Your task to perform on an android device: change the clock display to digital Image 0: 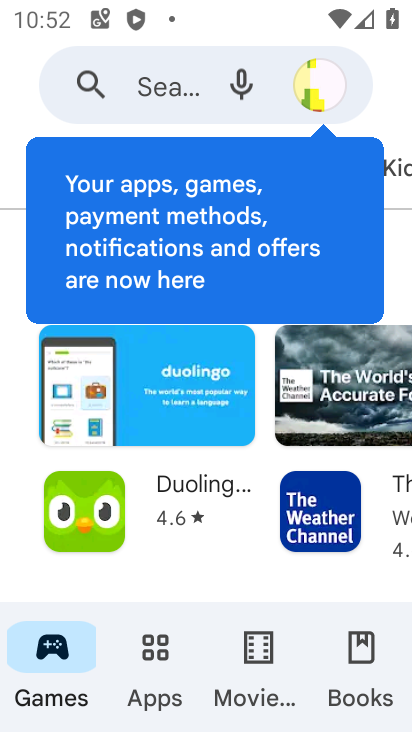
Step 0: press home button
Your task to perform on an android device: change the clock display to digital Image 1: 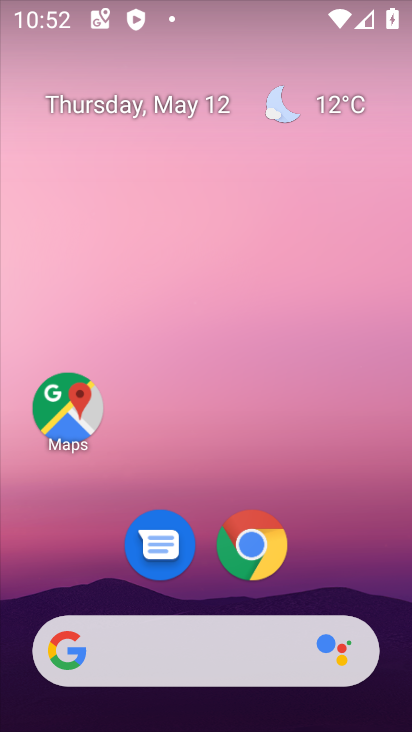
Step 1: drag from (207, 594) to (212, 339)
Your task to perform on an android device: change the clock display to digital Image 2: 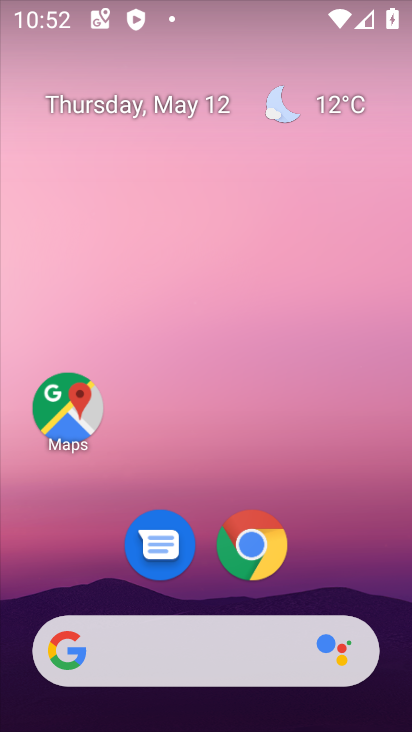
Step 2: drag from (210, 598) to (206, 140)
Your task to perform on an android device: change the clock display to digital Image 3: 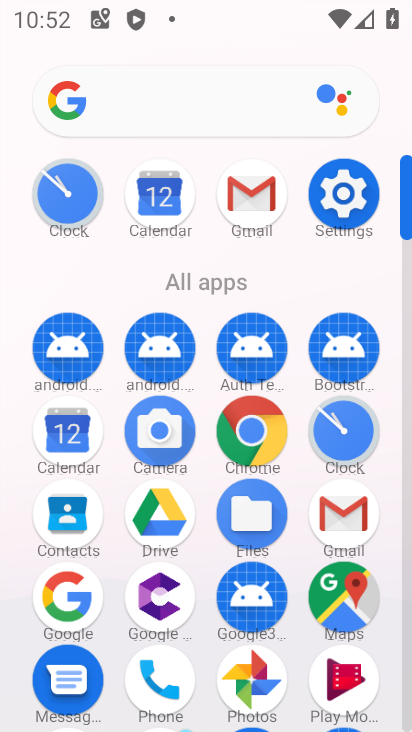
Step 3: click (341, 425)
Your task to perform on an android device: change the clock display to digital Image 4: 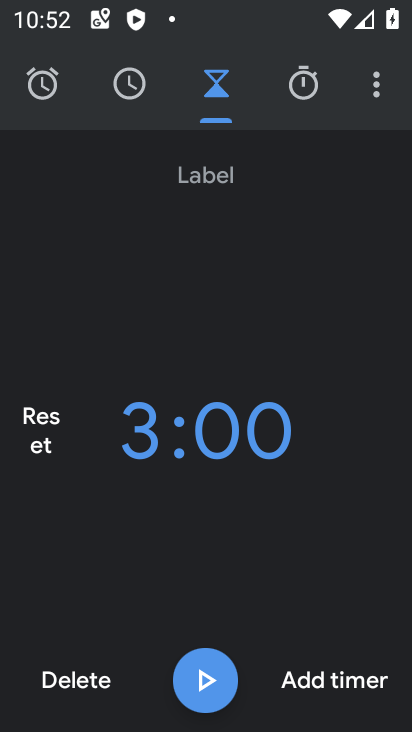
Step 4: click (379, 85)
Your task to perform on an android device: change the clock display to digital Image 5: 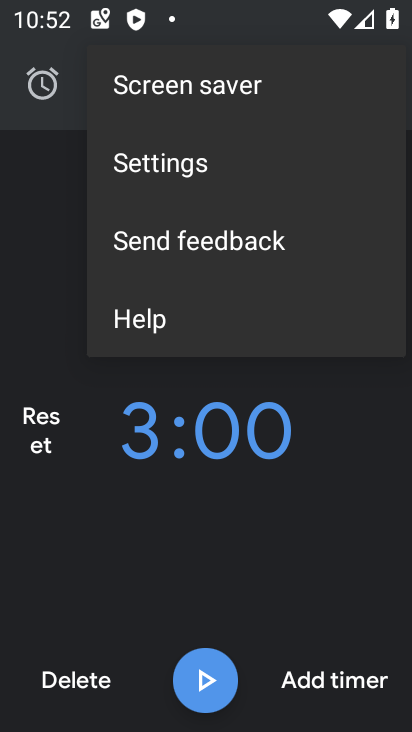
Step 5: click (231, 156)
Your task to perform on an android device: change the clock display to digital Image 6: 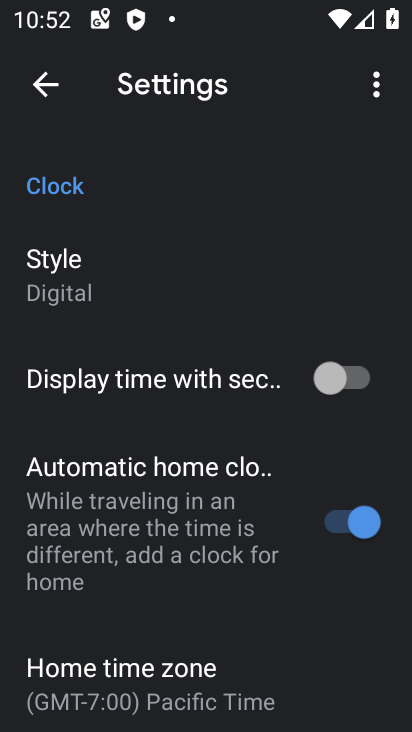
Step 6: click (99, 271)
Your task to perform on an android device: change the clock display to digital Image 7: 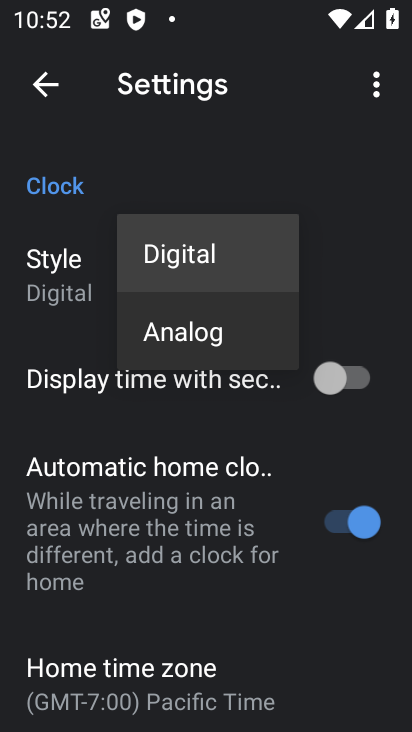
Step 7: click (172, 266)
Your task to perform on an android device: change the clock display to digital Image 8: 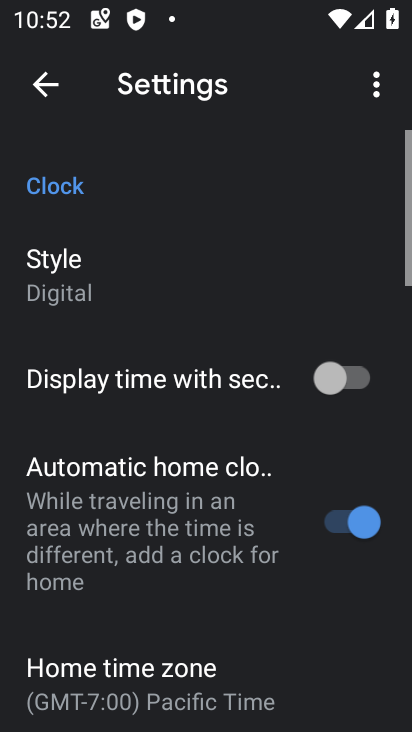
Step 8: task complete